Your task to perform on an android device: check storage Image 0: 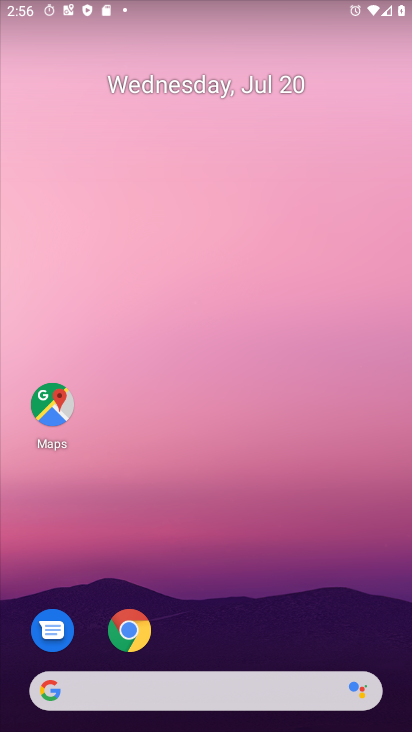
Step 0: drag from (132, 653) to (300, 66)
Your task to perform on an android device: check storage Image 1: 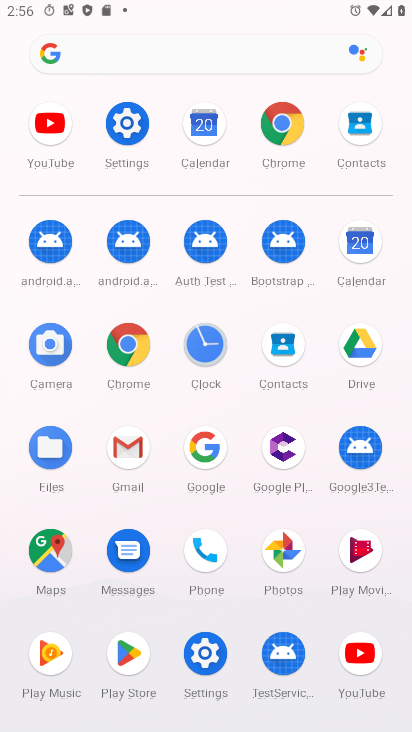
Step 1: click (120, 126)
Your task to perform on an android device: check storage Image 2: 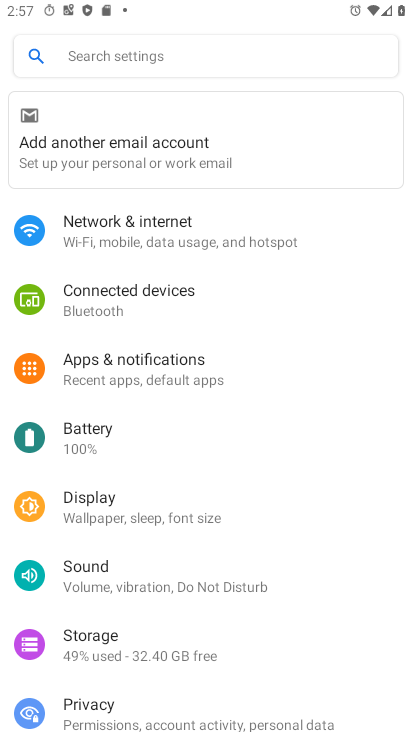
Step 2: click (141, 639)
Your task to perform on an android device: check storage Image 3: 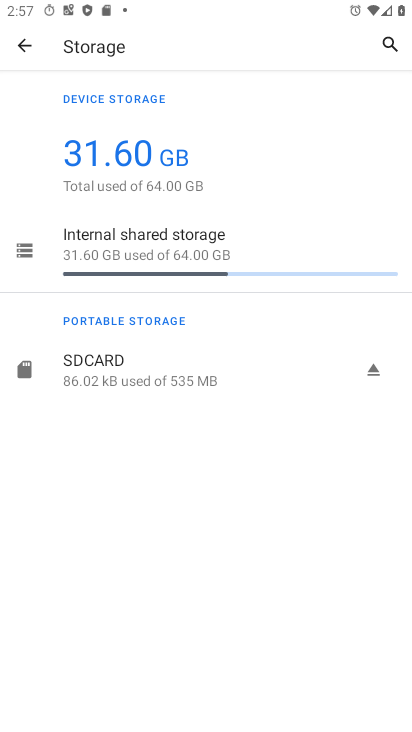
Step 3: task complete